Your task to perform on an android device: Search for sushi restaurants on Maps Image 0: 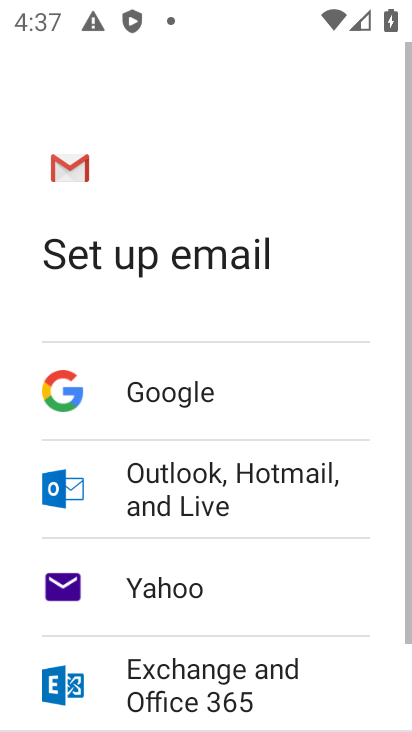
Step 0: press home button
Your task to perform on an android device: Search for sushi restaurants on Maps Image 1: 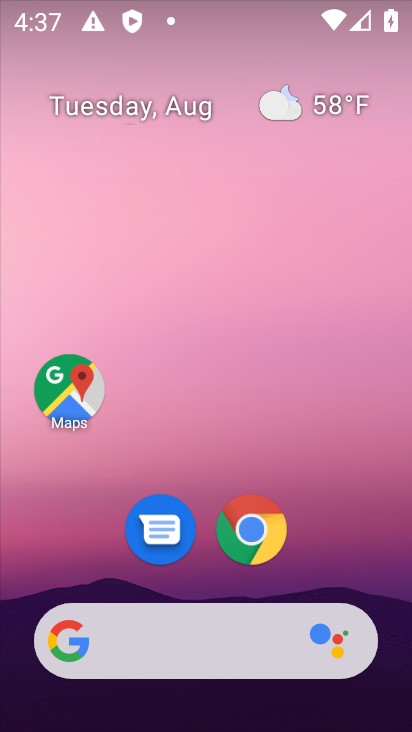
Step 1: click (93, 413)
Your task to perform on an android device: Search for sushi restaurants on Maps Image 2: 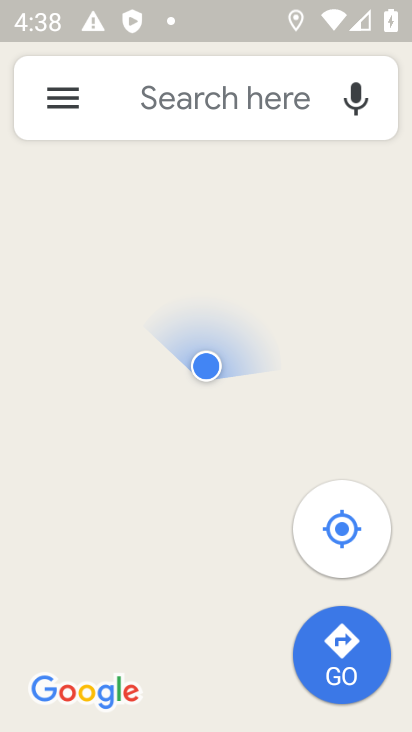
Step 2: click (183, 106)
Your task to perform on an android device: Search for sushi restaurants on Maps Image 3: 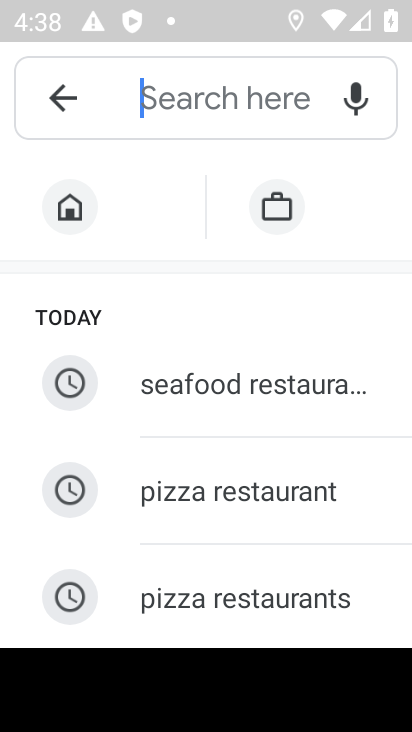
Step 3: type "sushi restaurants"
Your task to perform on an android device: Search for sushi restaurants on Maps Image 4: 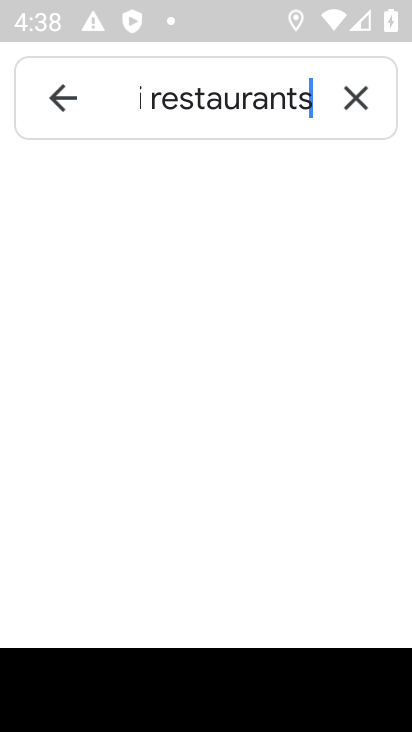
Step 4: type ""
Your task to perform on an android device: Search for sushi restaurants on Maps Image 5: 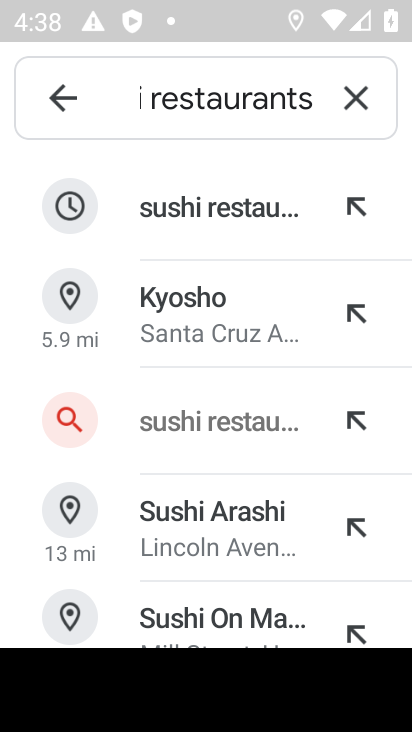
Step 5: click (246, 206)
Your task to perform on an android device: Search for sushi restaurants on Maps Image 6: 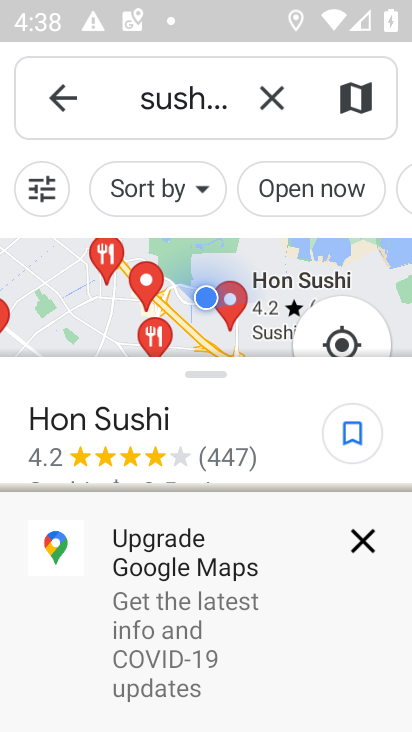
Step 6: task complete